Your task to perform on an android device: open app "Indeed Job Search" (install if not already installed) and go to login screen Image 0: 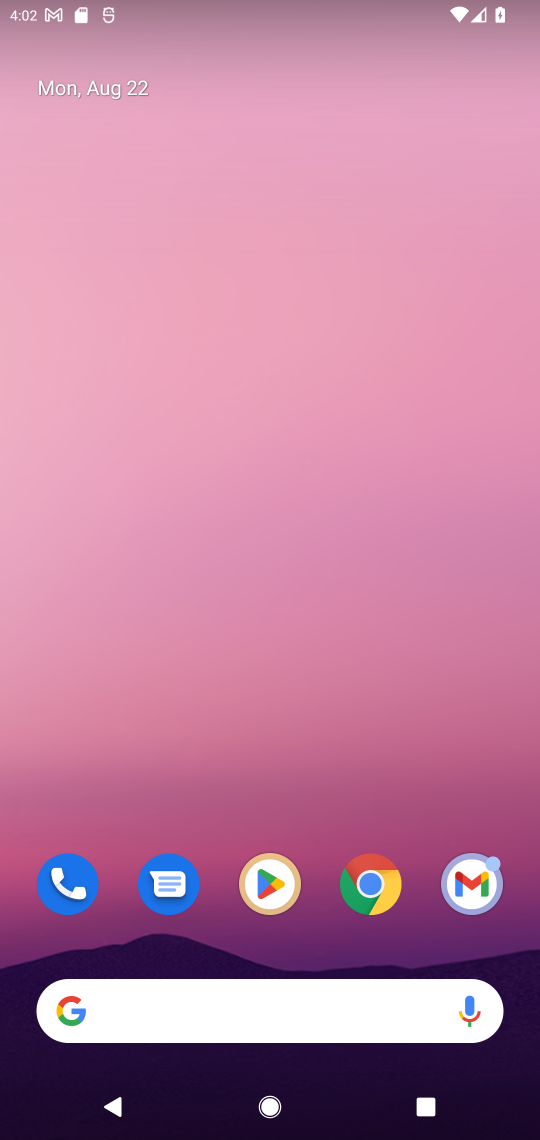
Step 0: click (274, 879)
Your task to perform on an android device: open app "Indeed Job Search" (install if not already installed) and go to login screen Image 1: 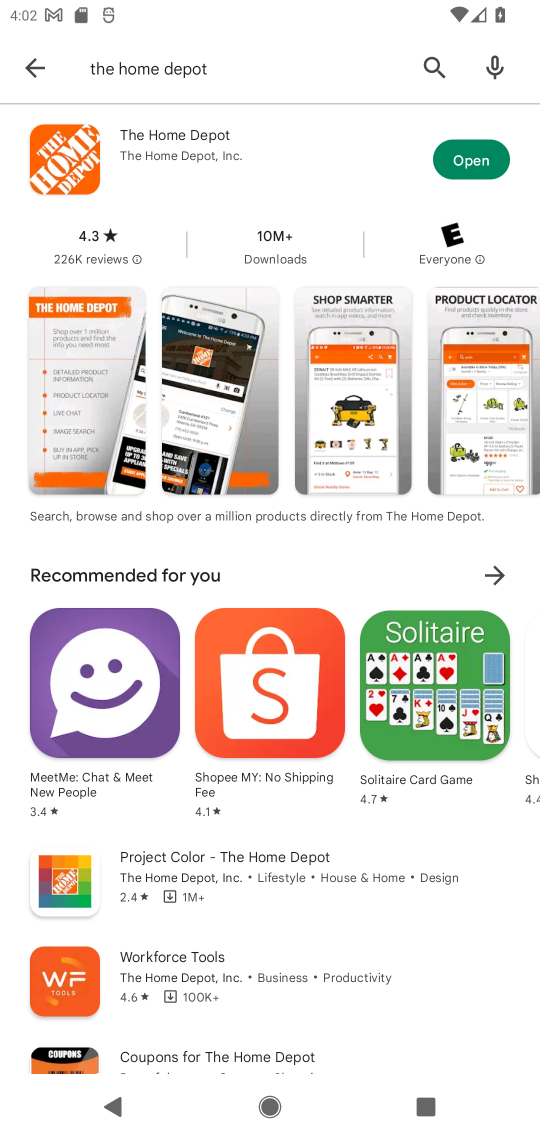
Step 1: click (234, 77)
Your task to perform on an android device: open app "Indeed Job Search" (install if not already installed) and go to login screen Image 2: 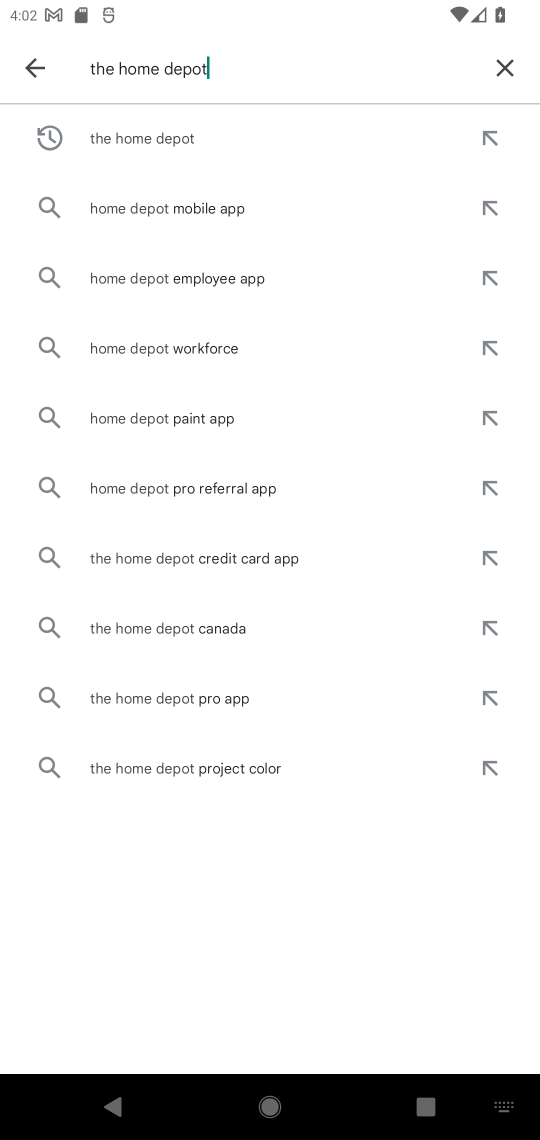
Step 2: click (509, 58)
Your task to perform on an android device: open app "Indeed Job Search" (install if not already installed) and go to login screen Image 3: 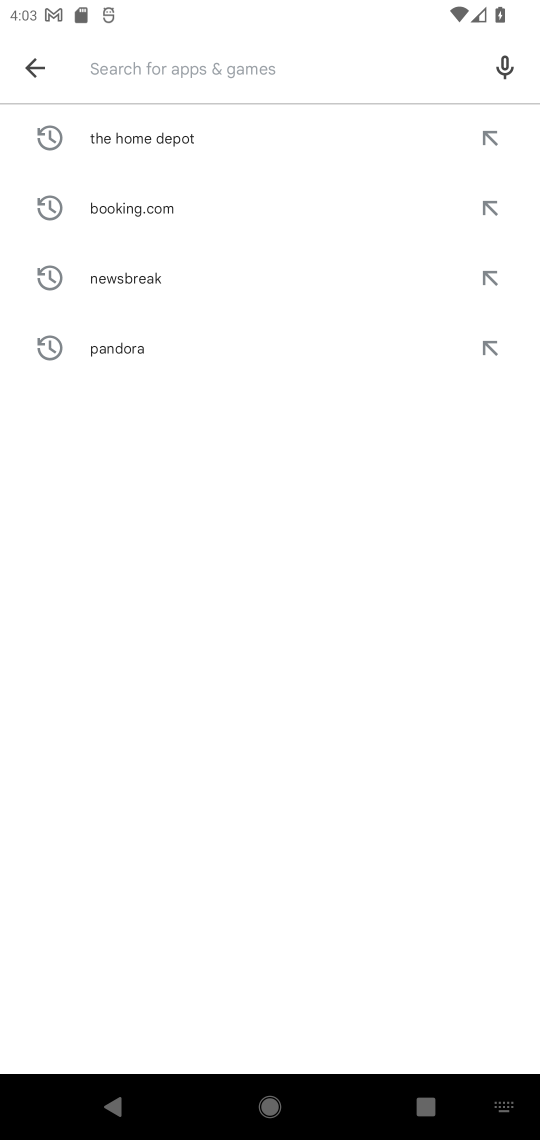
Step 3: type "Indeed Job search"
Your task to perform on an android device: open app "Indeed Job Search" (install if not already installed) and go to login screen Image 4: 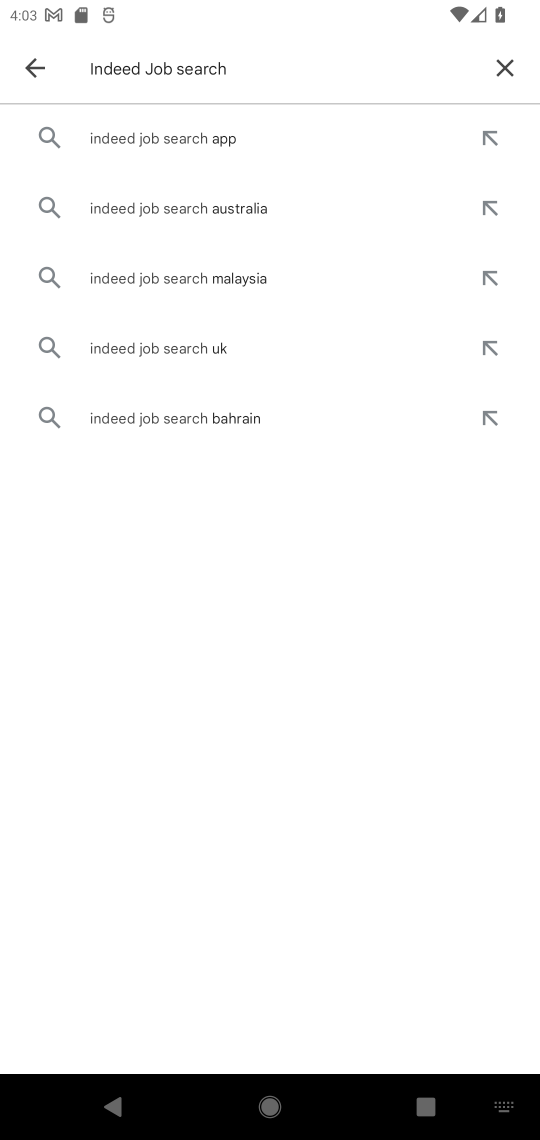
Step 4: click (141, 153)
Your task to perform on an android device: open app "Indeed Job Search" (install if not already installed) and go to login screen Image 5: 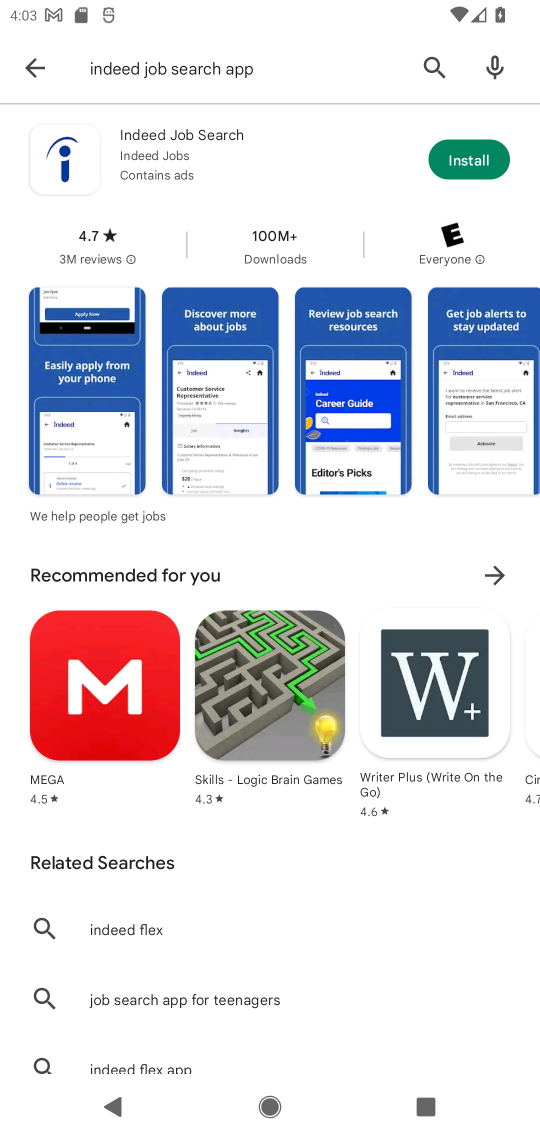
Step 5: click (475, 166)
Your task to perform on an android device: open app "Indeed Job Search" (install if not already installed) and go to login screen Image 6: 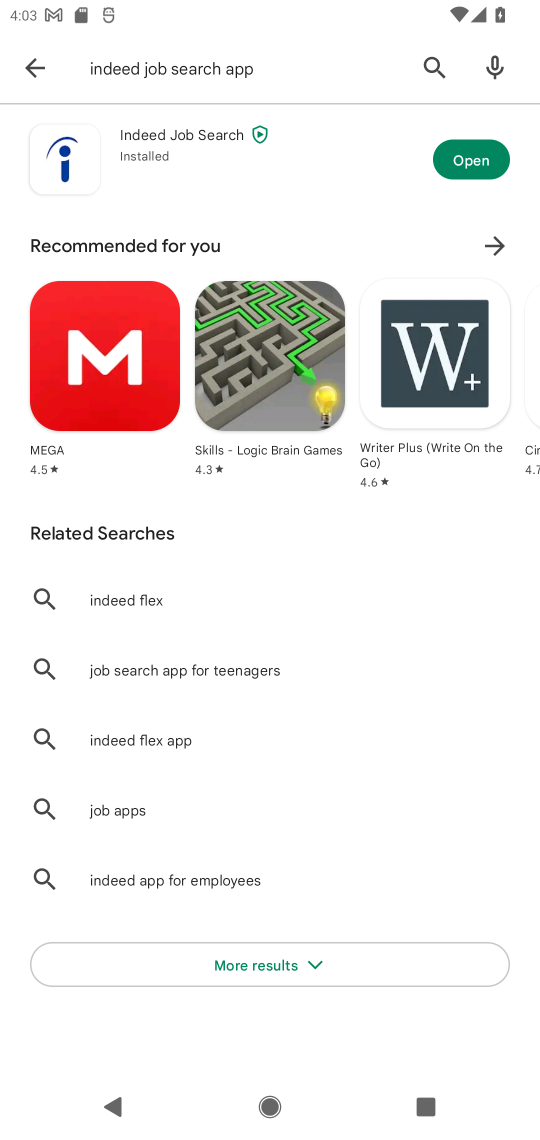
Step 6: click (443, 147)
Your task to perform on an android device: open app "Indeed Job Search" (install if not already installed) and go to login screen Image 7: 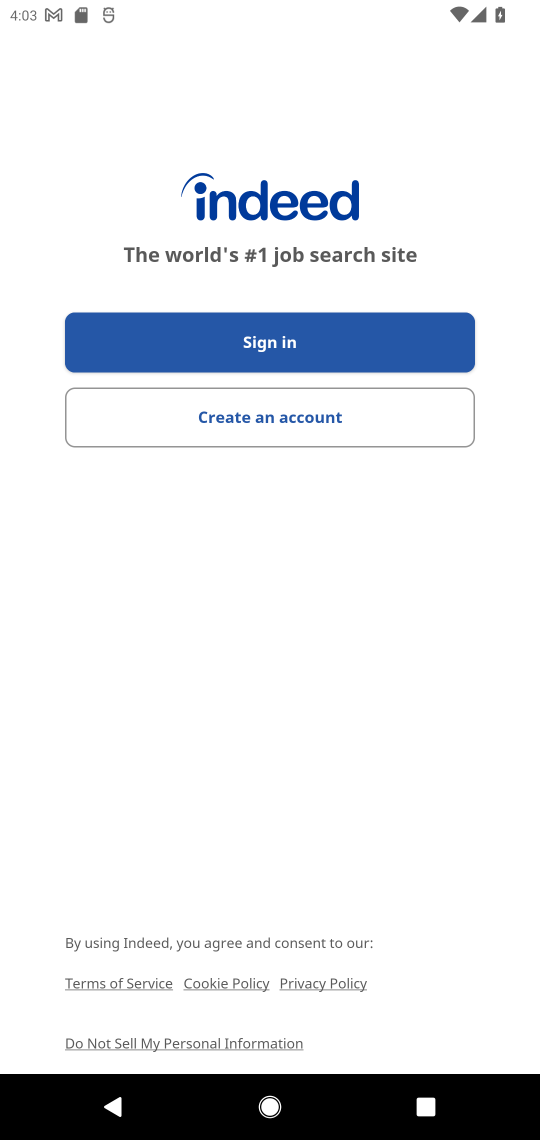
Step 7: click (379, 349)
Your task to perform on an android device: open app "Indeed Job Search" (install if not already installed) and go to login screen Image 8: 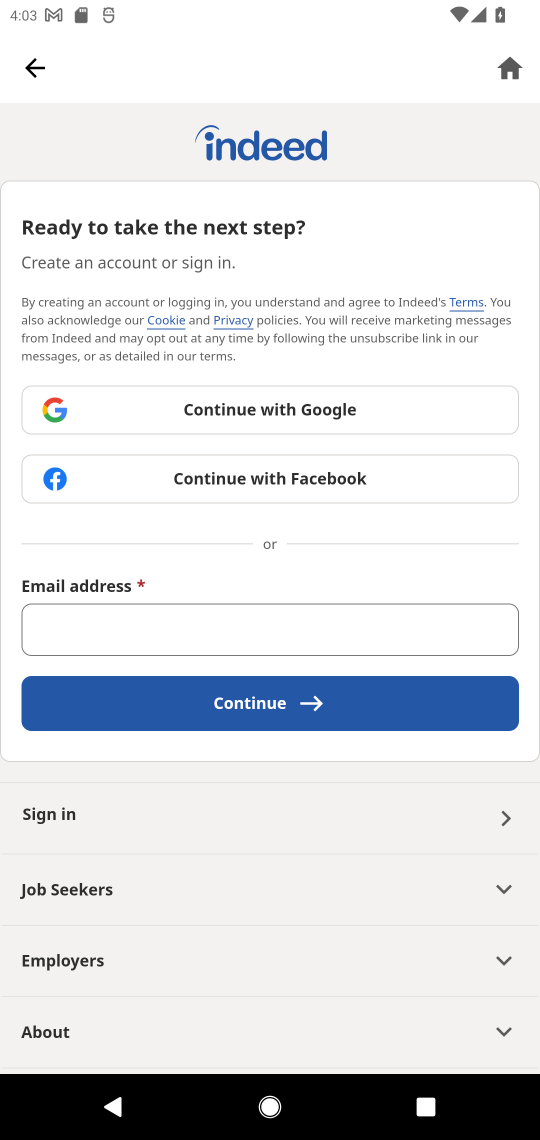
Step 8: task complete